Your task to perform on an android device: Open calendar and show me the second week of next month Image 0: 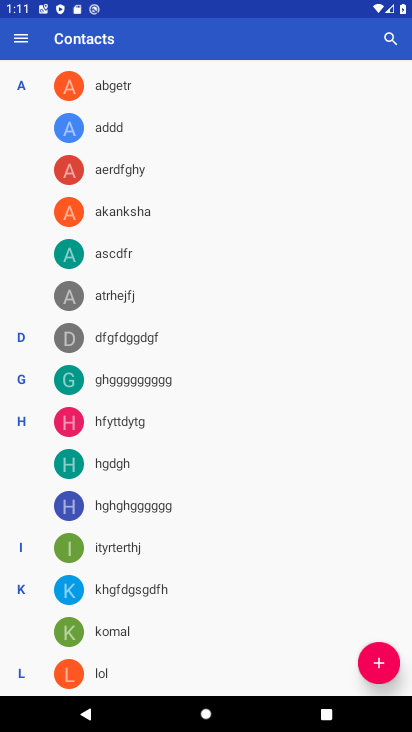
Step 0: press home button
Your task to perform on an android device: Open calendar and show me the second week of next month Image 1: 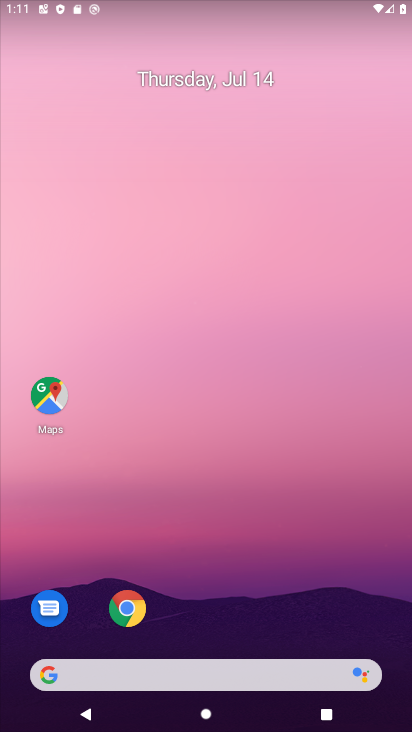
Step 1: drag from (390, 634) to (320, 63)
Your task to perform on an android device: Open calendar and show me the second week of next month Image 2: 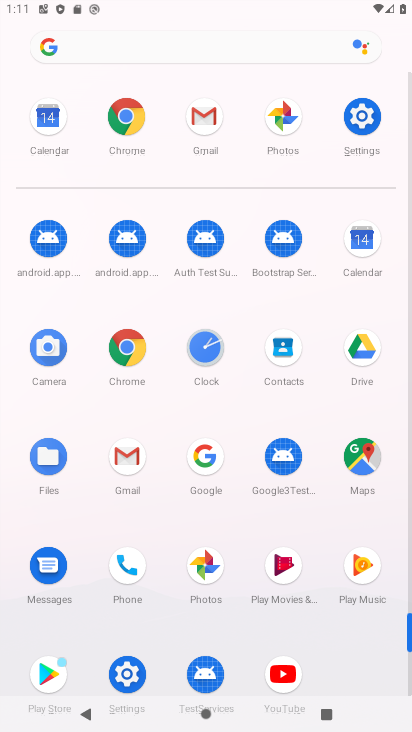
Step 2: click (359, 239)
Your task to perform on an android device: Open calendar and show me the second week of next month Image 3: 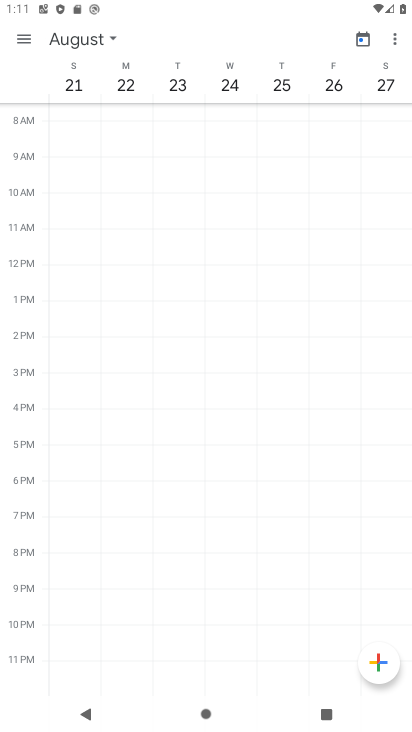
Step 3: click (111, 38)
Your task to perform on an android device: Open calendar and show me the second week of next month Image 4: 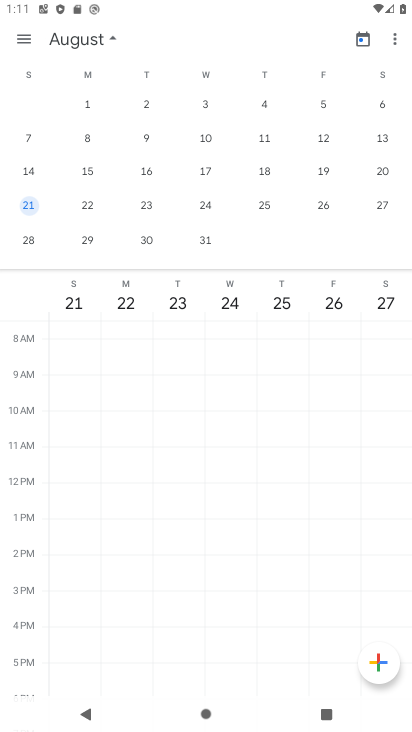
Step 4: click (25, 167)
Your task to perform on an android device: Open calendar and show me the second week of next month Image 5: 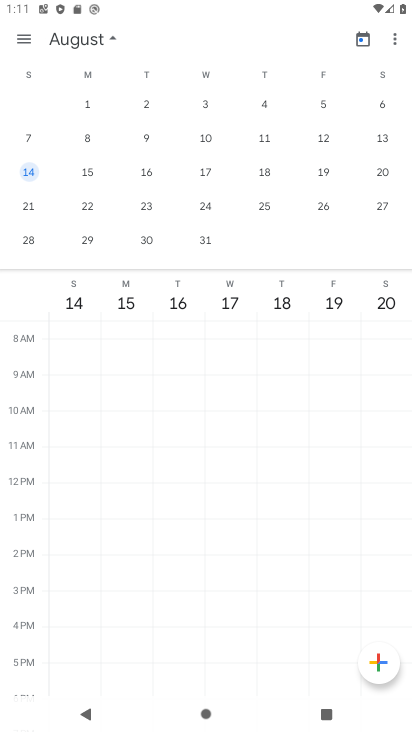
Step 5: task complete